Your task to perform on an android device: Open Chrome and go to settings Image 0: 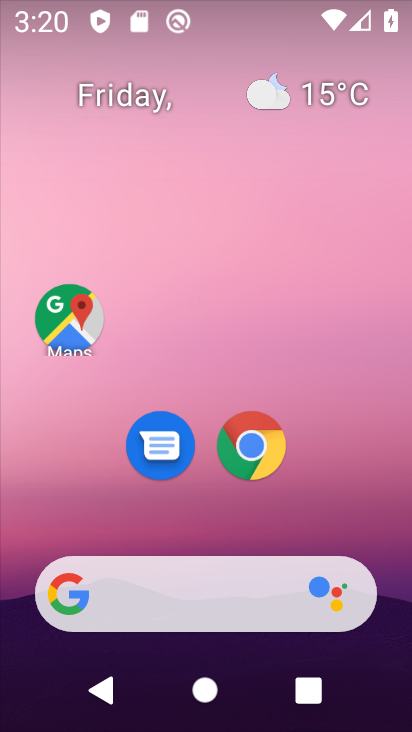
Step 0: click (252, 459)
Your task to perform on an android device: Open Chrome and go to settings Image 1: 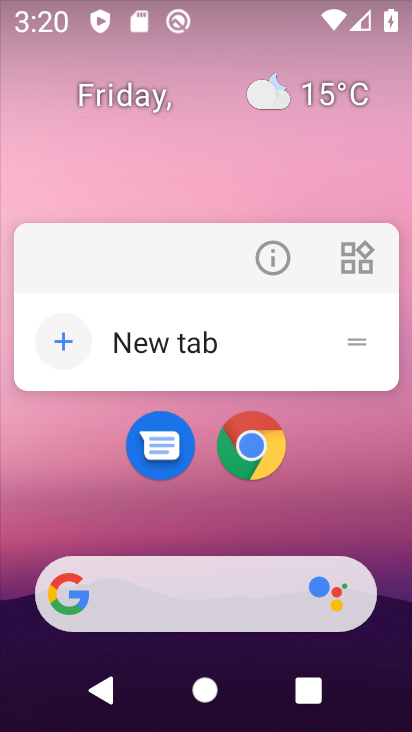
Step 1: click (254, 461)
Your task to perform on an android device: Open Chrome and go to settings Image 2: 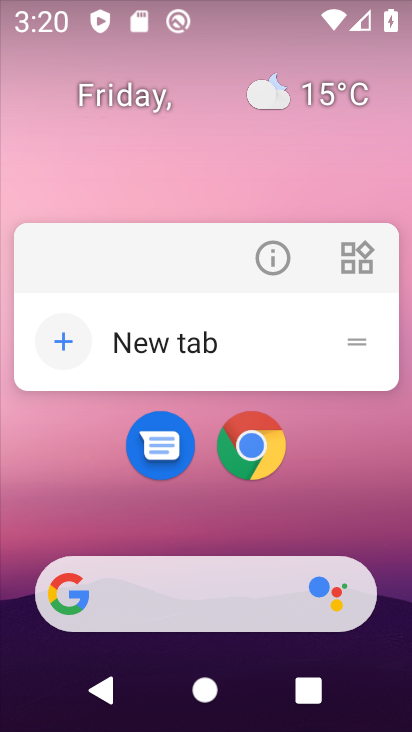
Step 2: click (253, 455)
Your task to perform on an android device: Open Chrome and go to settings Image 3: 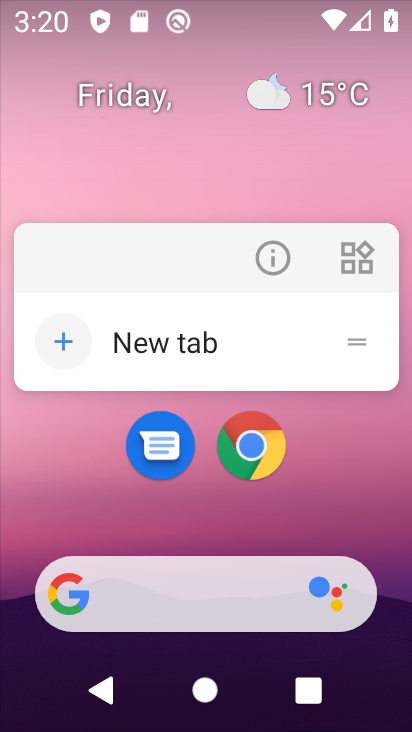
Step 3: click (253, 439)
Your task to perform on an android device: Open Chrome and go to settings Image 4: 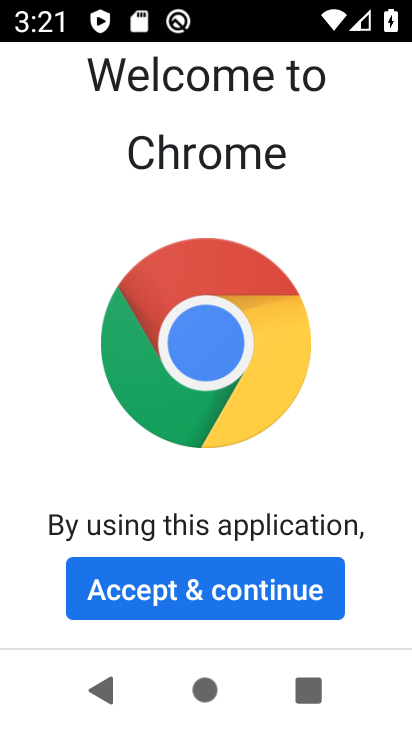
Step 4: click (294, 582)
Your task to perform on an android device: Open Chrome and go to settings Image 5: 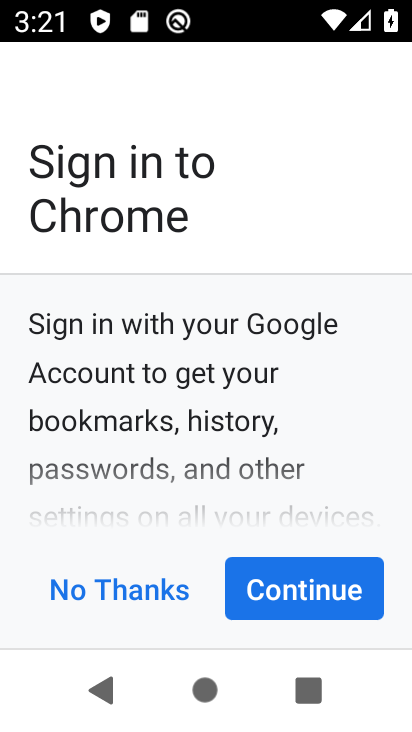
Step 5: click (259, 600)
Your task to perform on an android device: Open Chrome and go to settings Image 6: 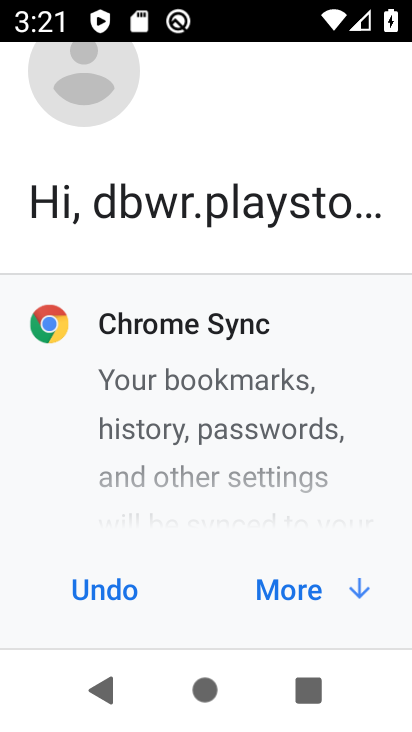
Step 6: click (307, 602)
Your task to perform on an android device: Open Chrome and go to settings Image 7: 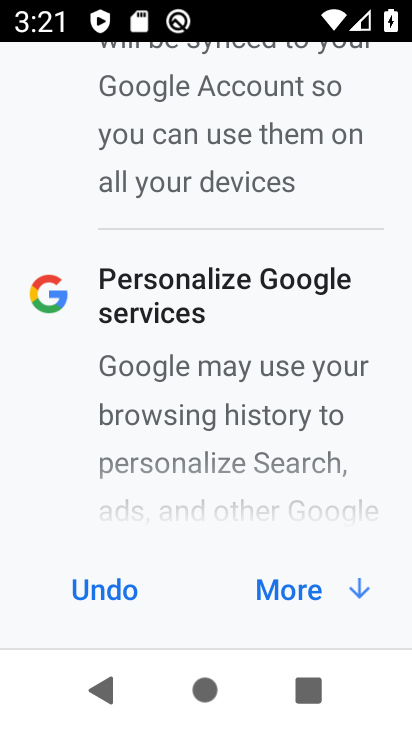
Step 7: click (307, 602)
Your task to perform on an android device: Open Chrome and go to settings Image 8: 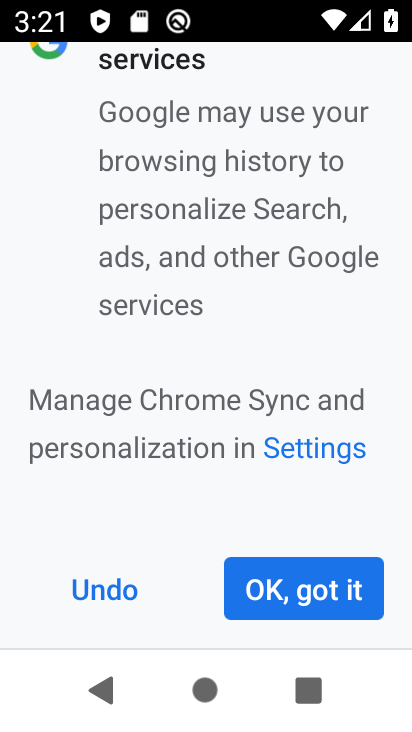
Step 8: click (303, 594)
Your task to perform on an android device: Open Chrome and go to settings Image 9: 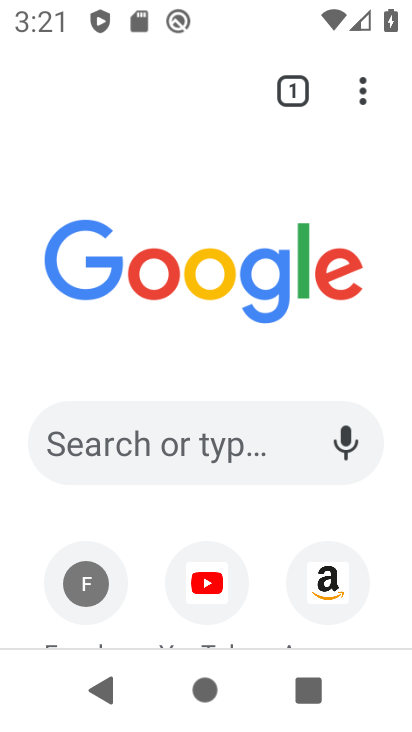
Step 9: task complete